Your task to perform on an android device: Is it going to rain today? Image 0: 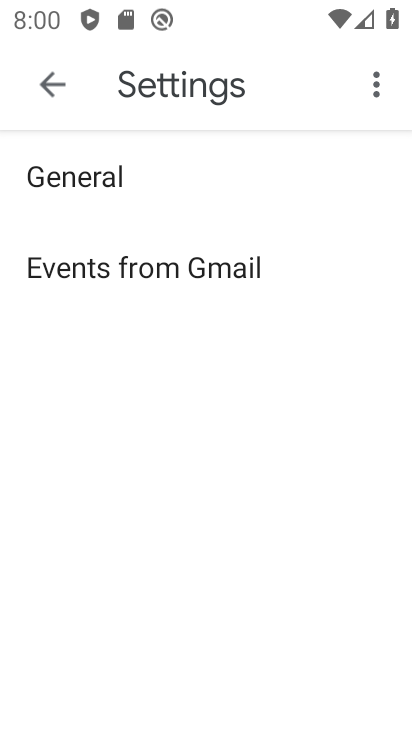
Step 0: press home button
Your task to perform on an android device: Is it going to rain today? Image 1: 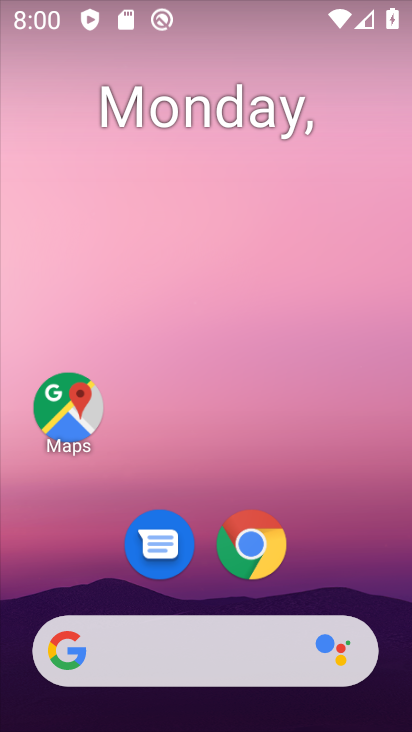
Step 1: click (259, 648)
Your task to perform on an android device: Is it going to rain today? Image 2: 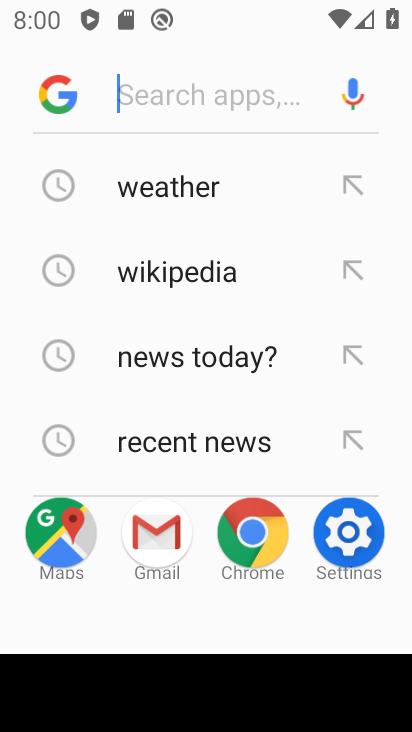
Step 2: click (171, 199)
Your task to perform on an android device: Is it going to rain today? Image 3: 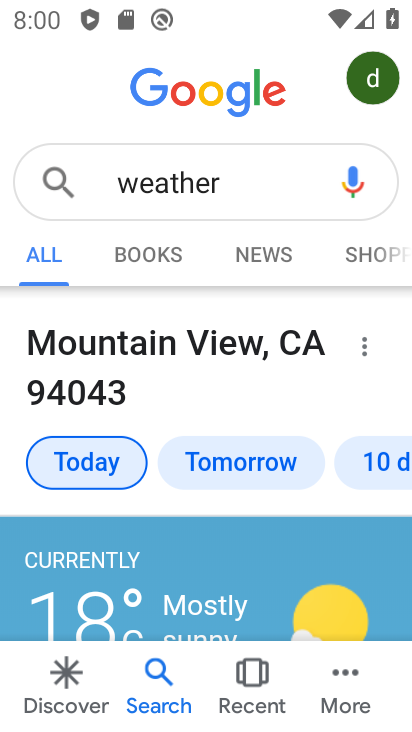
Step 3: click (53, 470)
Your task to perform on an android device: Is it going to rain today? Image 4: 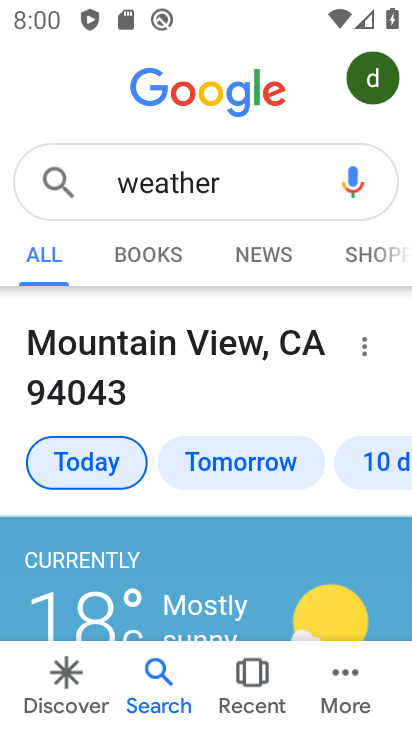
Step 4: task complete